Your task to perform on an android device: Search for vegetarian restaurants on Maps Image 0: 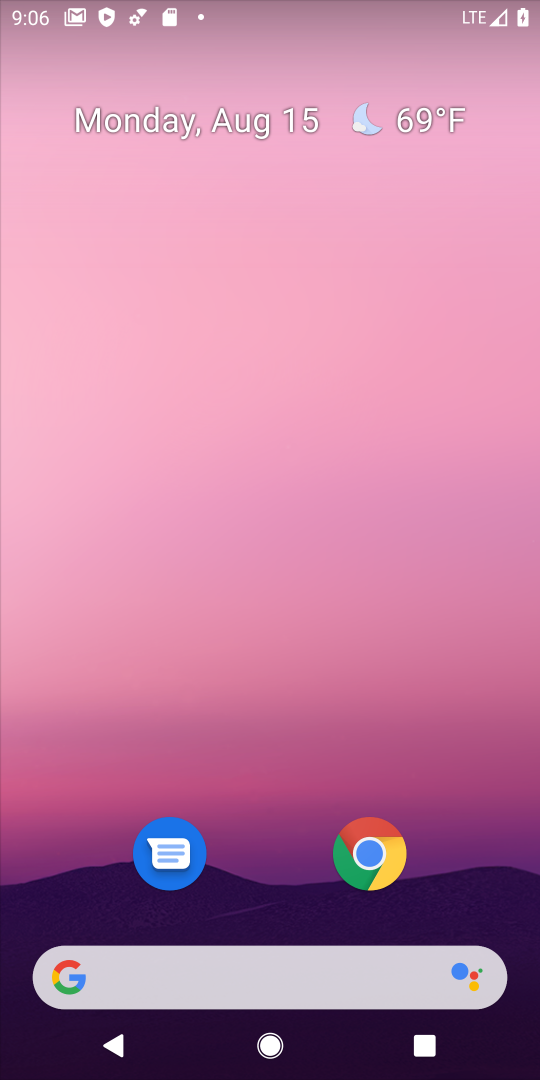
Step 0: press home button
Your task to perform on an android device: Search for vegetarian restaurants on Maps Image 1: 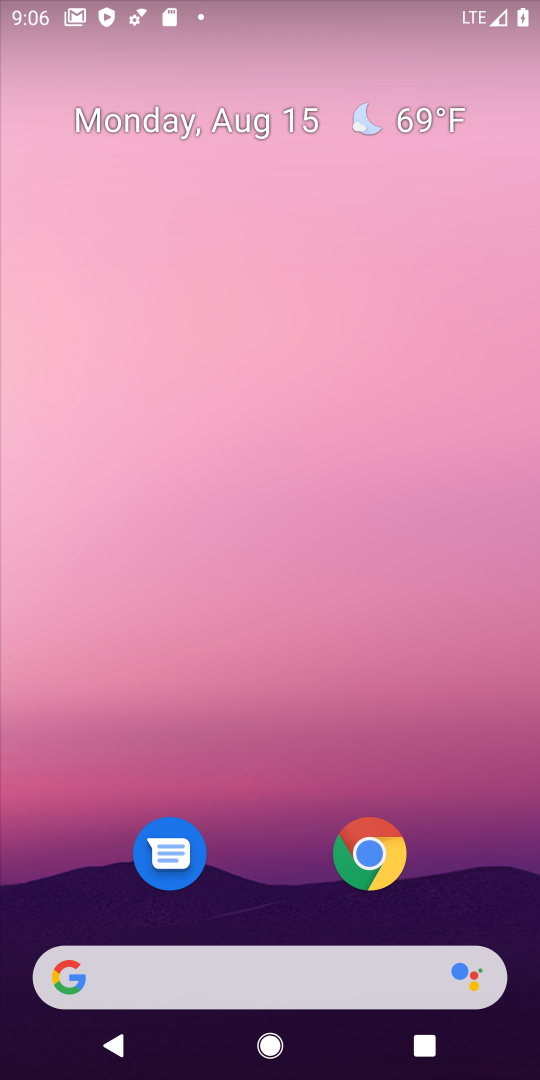
Step 1: drag from (289, 795) to (417, 147)
Your task to perform on an android device: Search for vegetarian restaurants on Maps Image 2: 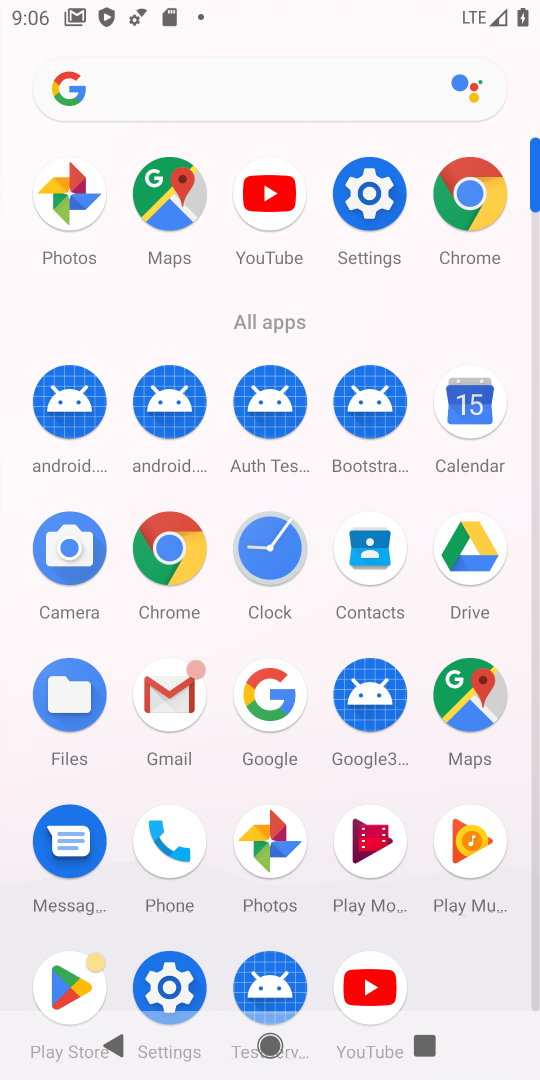
Step 2: click (141, 198)
Your task to perform on an android device: Search for vegetarian restaurants on Maps Image 3: 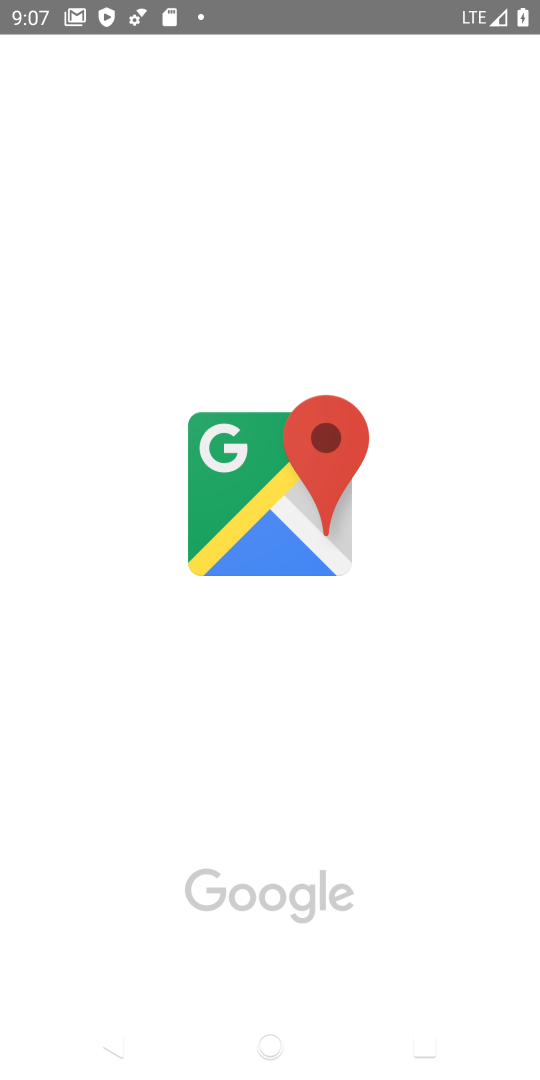
Step 3: task complete